Your task to perform on an android device: turn off priority inbox in the gmail app Image 0: 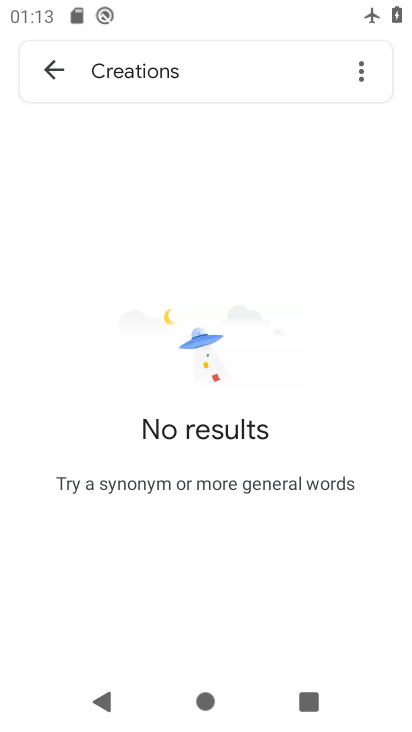
Step 0: press home button
Your task to perform on an android device: turn off priority inbox in the gmail app Image 1: 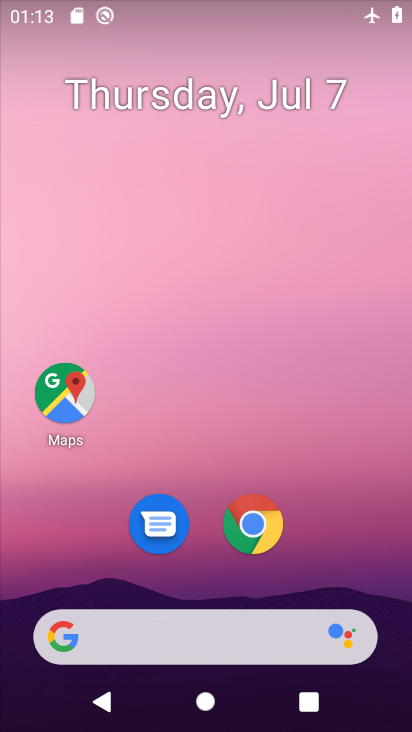
Step 1: drag from (311, 564) to (361, 51)
Your task to perform on an android device: turn off priority inbox in the gmail app Image 2: 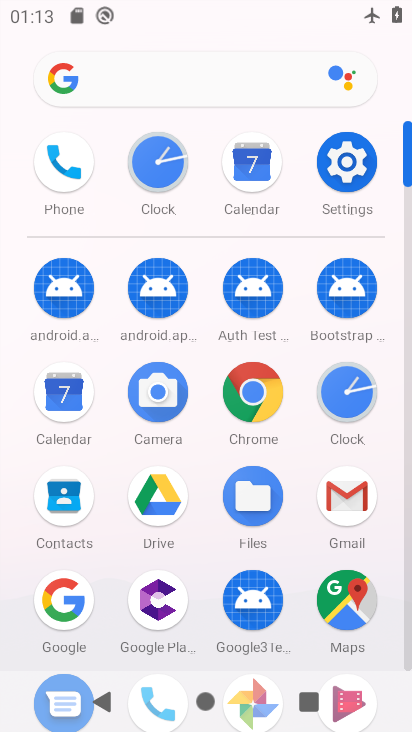
Step 2: click (337, 489)
Your task to perform on an android device: turn off priority inbox in the gmail app Image 3: 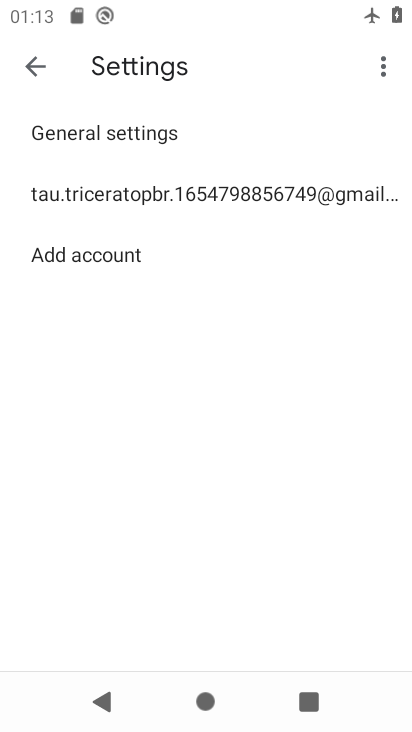
Step 3: click (199, 186)
Your task to perform on an android device: turn off priority inbox in the gmail app Image 4: 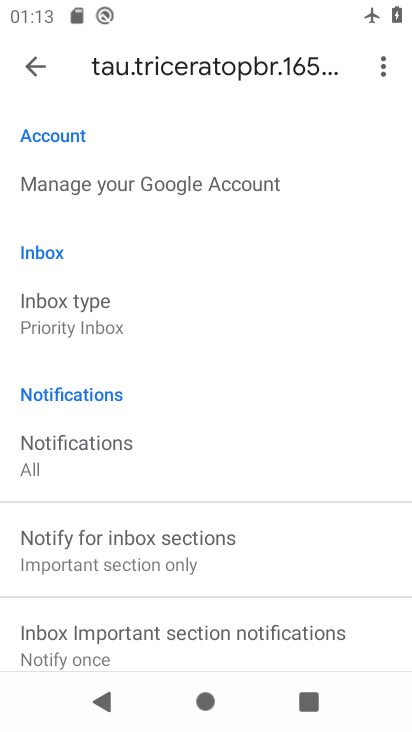
Step 4: click (108, 305)
Your task to perform on an android device: turn off priority inbox in the gmail app Image 5: 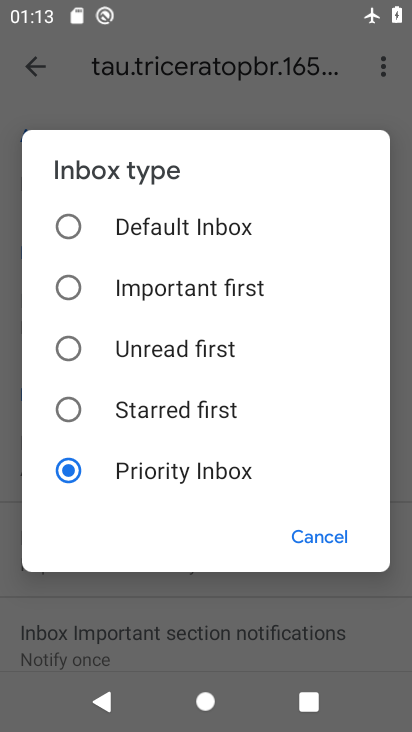
Step 5: click (72, 212)
Your task to perform on an android device: turn off priority inbox in the gmail app Image 6: 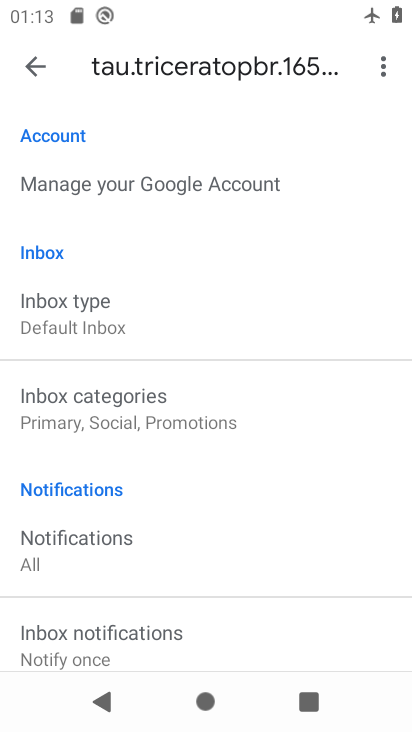
Step 6: task complete